Your task to perform on an android device: find which apps use the phone's location Image 0: 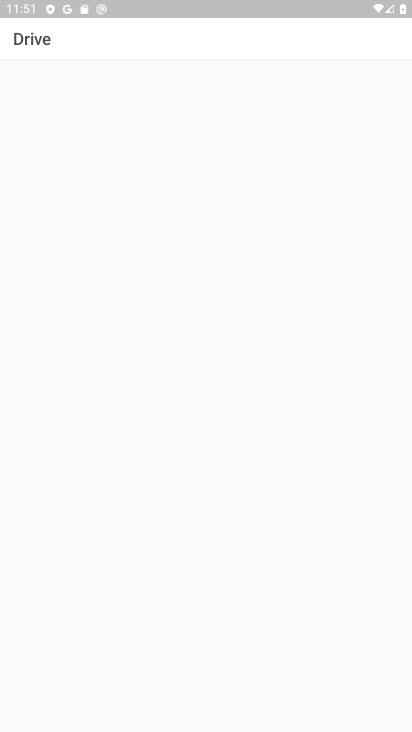
Step 0: drag from (383, 672) to (281, 187)
Your task to perform on an android device: find which apps use the phone's location Image 1: 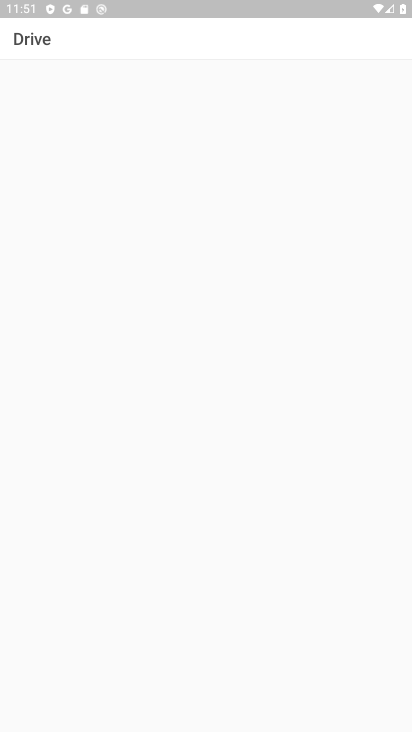
Step 1: press home button
Your task to perform on an android device: find which apps use the phone's location Image 2: 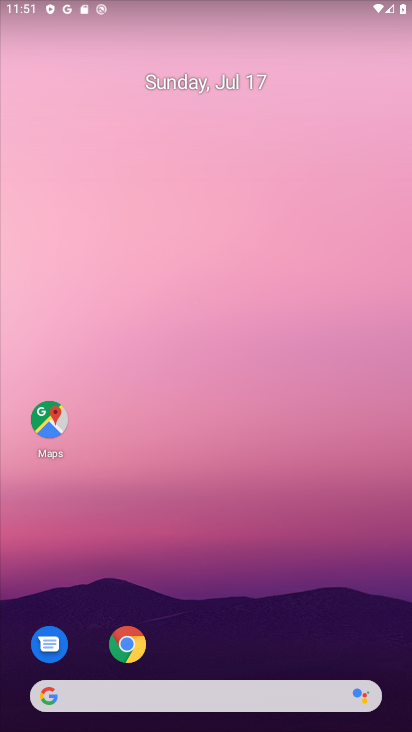
Step 2: drag from (315, 642) to (206, 229)
Your task to perform on an android device: find which apps use the phone's location Image 3: 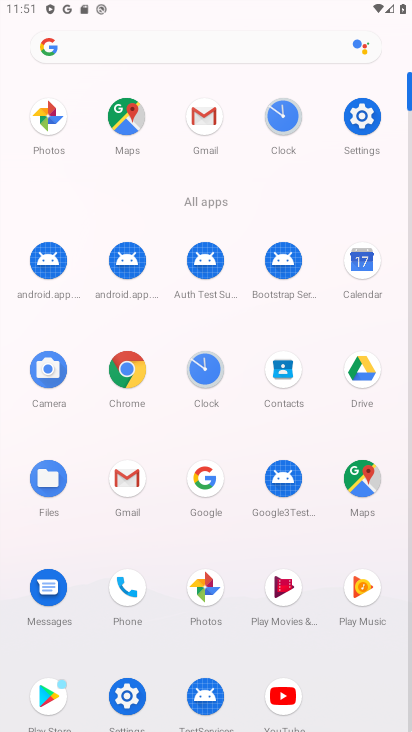
Step 3: click (369, 122)
Your task to perform on an android device: find which apps use the phone's location Image 4: 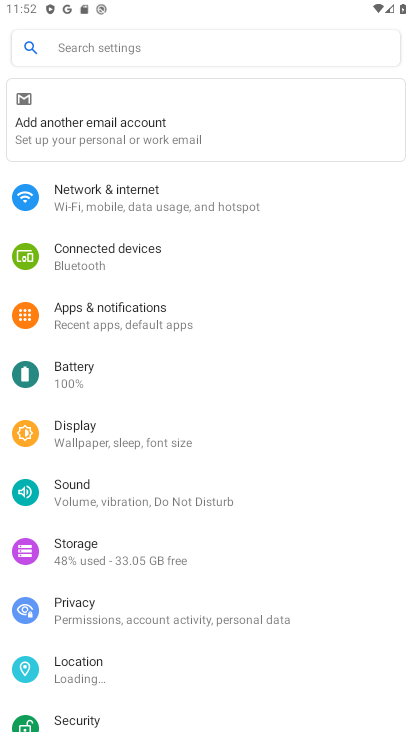
Step 4: click (199, 659)
Your task to perform on an android device: find which apps use the phone's location Image 5: 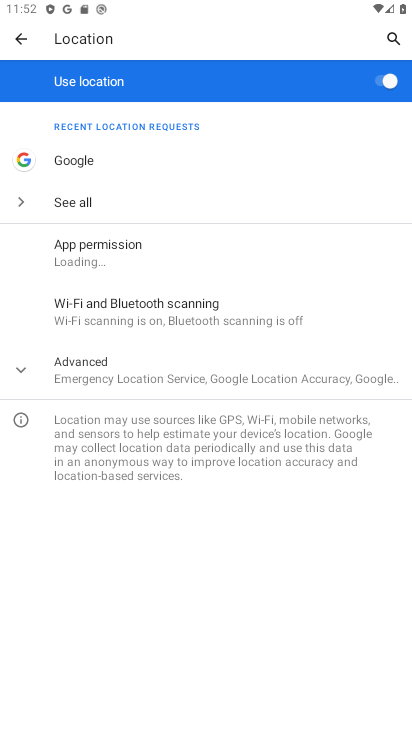
Step 5: click (168, 193)
Your task to perform on an android device: find which apps use the phone's location Image 6: 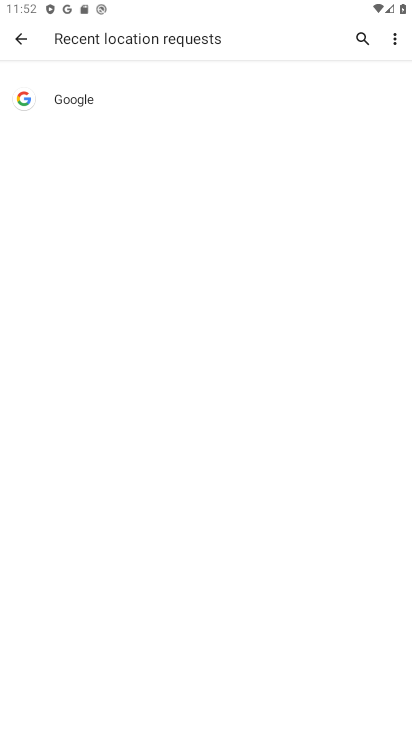
Step 6: task complete